Your task to perform on an android device: change timer sound Image 0: 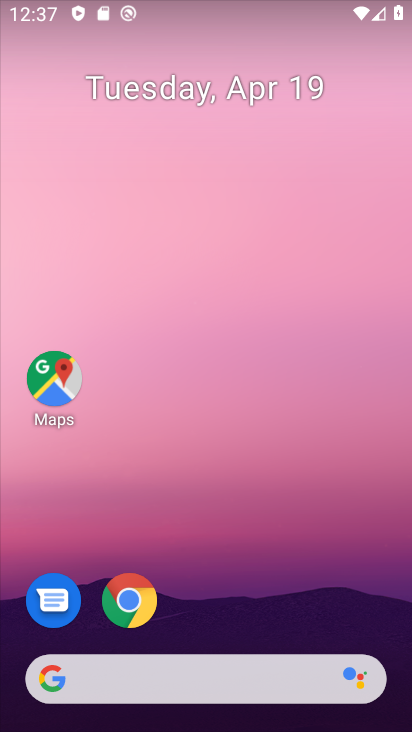
Step 0: drag from (214, 647) to (331, 24)
Your task to perform on an android device: change timer sound Image 1: 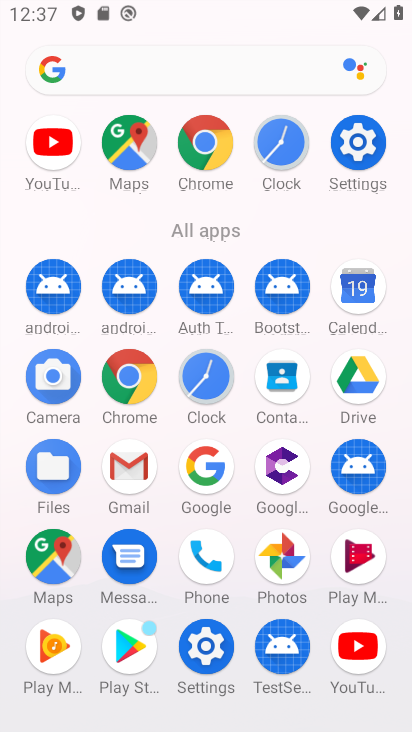
Step 1: click (206, 384)
Your task to perform on an android device: change timer sound Image 2: 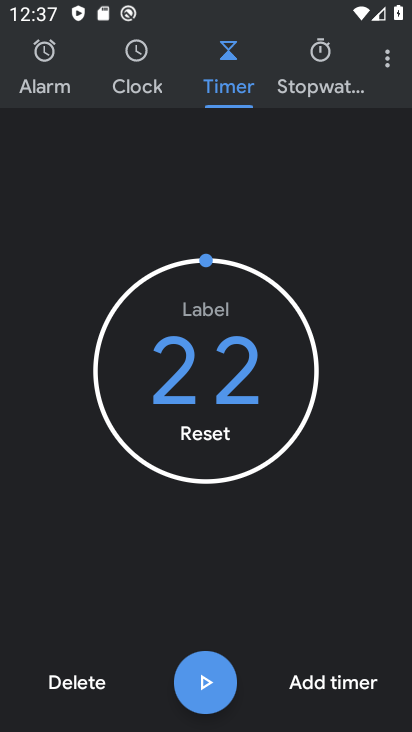
Step 2: click (391, 67)
Your task to perform on an android device: change timer sound Image 3: 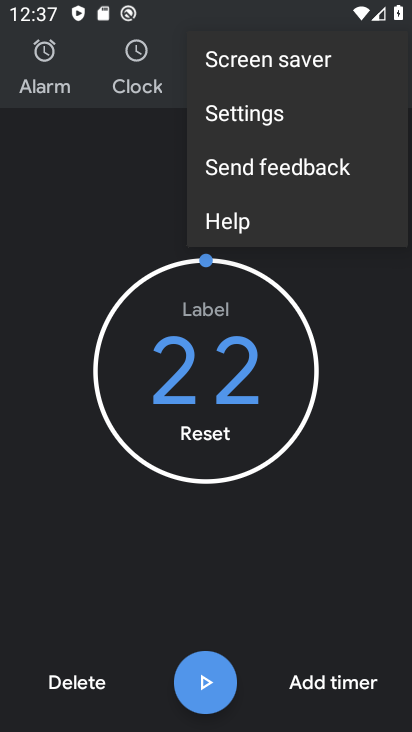
Step 3: click (275, 113)
Your task to perform on an android device: change timer sound Image 4: 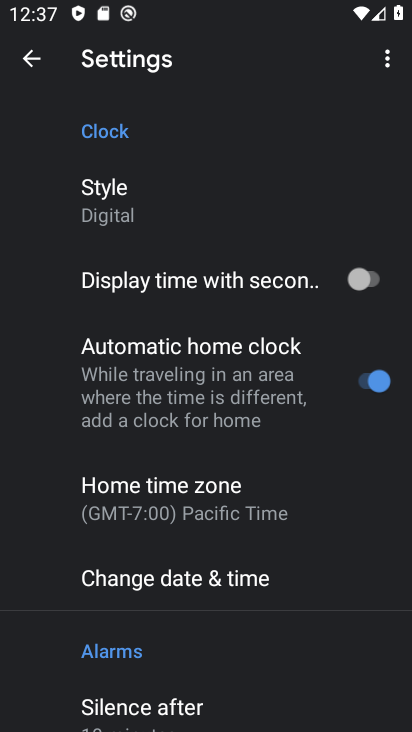
Step 4: drag from (208, 624) to (179, 147)
Your task to perform on an android device: change timer sound Image 5: 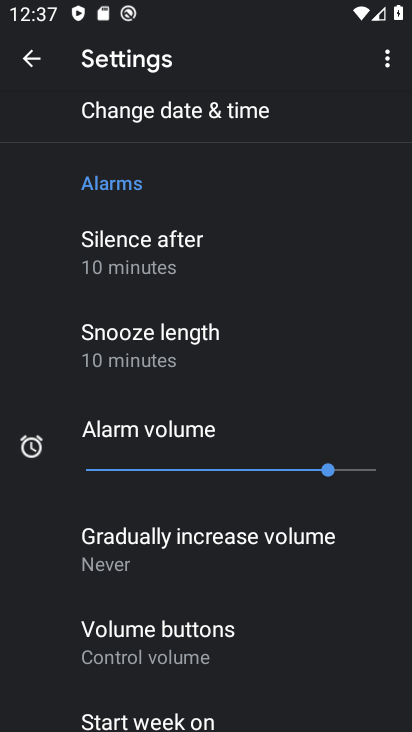
Step 5: drag from (223, 623) to (207, 196)
Your task to perform on an android device: change timer sound Image 6: 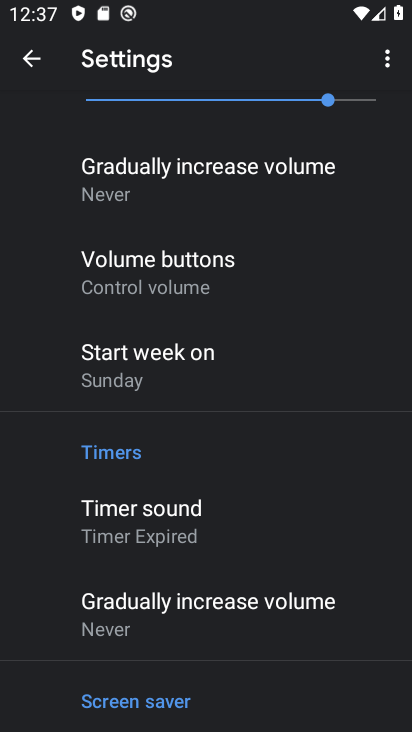
Step 6: click (194, 524)
Your task to perform on an android device: change timer sound Image 7: 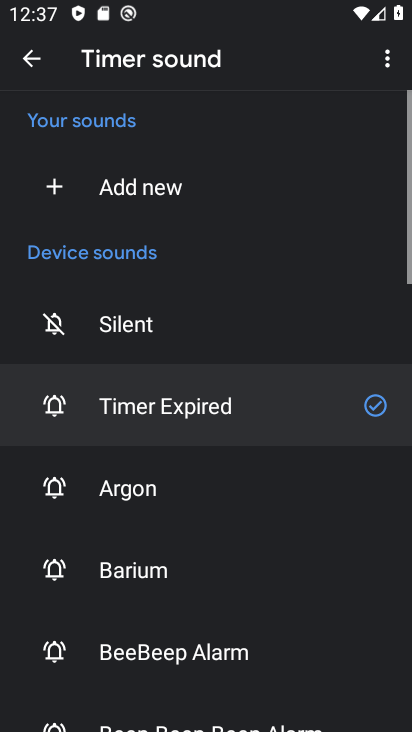
Step 7: click (189, 517)
Your task to perform on an android device: change timer sound Image 8: 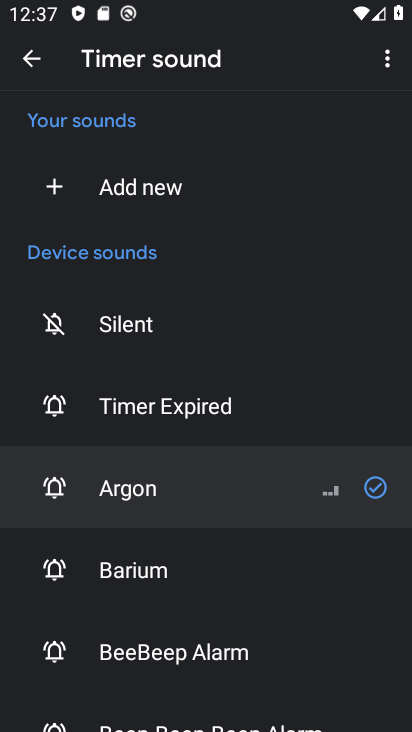
Step 8: task complete